Your task to perform on an android device: visit the assistant section in the google photos Image 0: 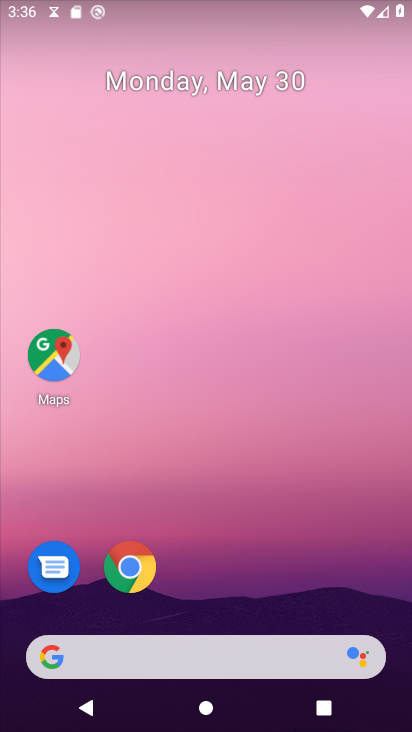
Step 0: drag from (236, 695) to (187, 261)
Your task to perform on an android device: visit the assistant section in the google photos Image 1: 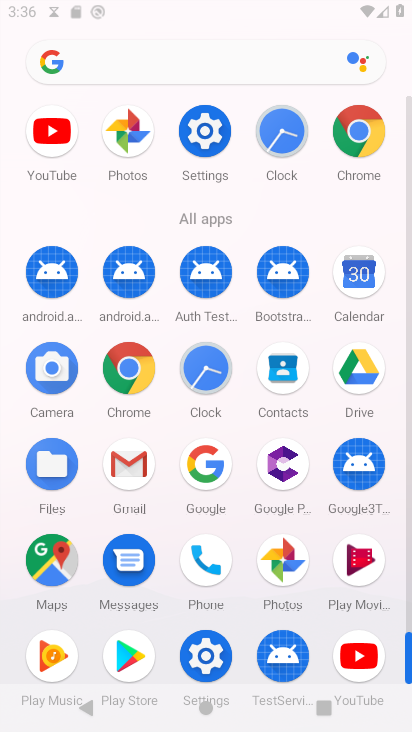
Step 1: drag from (206, 460) to (146, 22)
Your task to perform on an android device: visit the assistant section in the google photos Image 2: 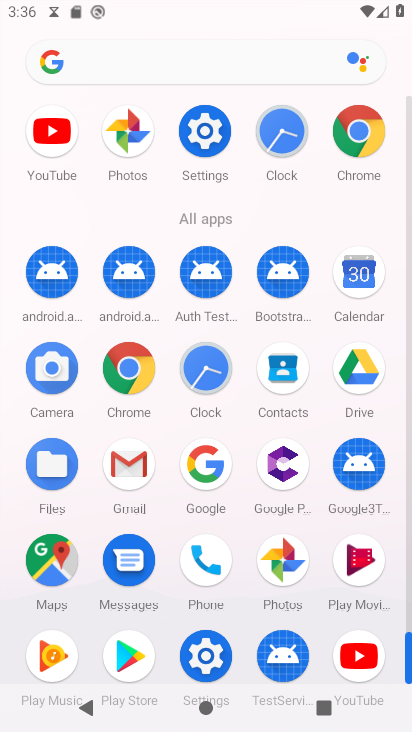
Step 2: drag from (235, 481) to (191, 153)
Your task to perform on an android device: visit the assistant section in the google photos Image 3: 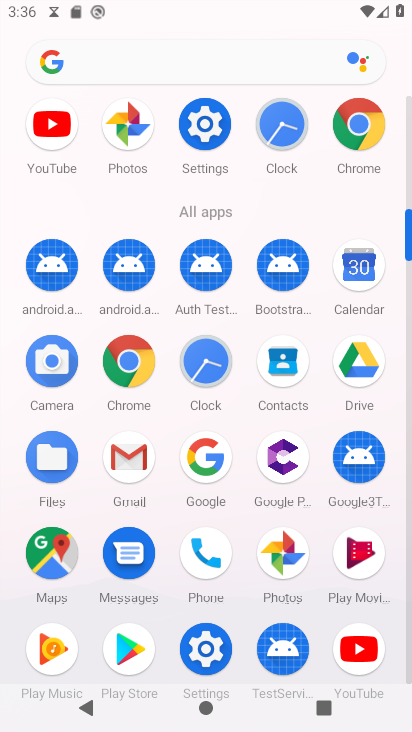
Step 3: click (279, 546)
Your task to perform on an android device: visit the assistant section in the google photos Image 4: 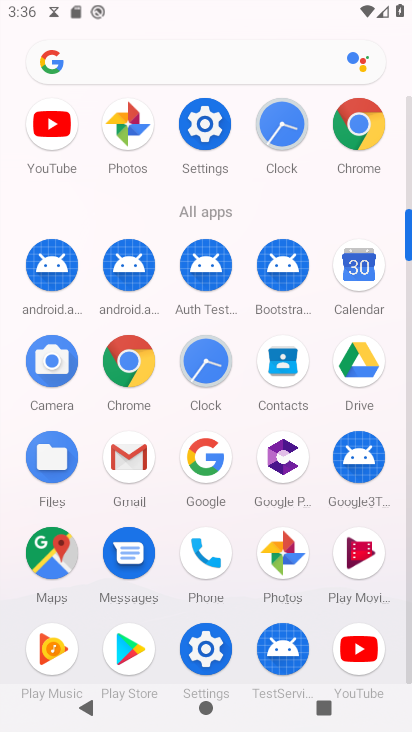
Step 4: click (279, 546)
Your task to perform on an android device: visit the assistant section in the google photos Image 5: 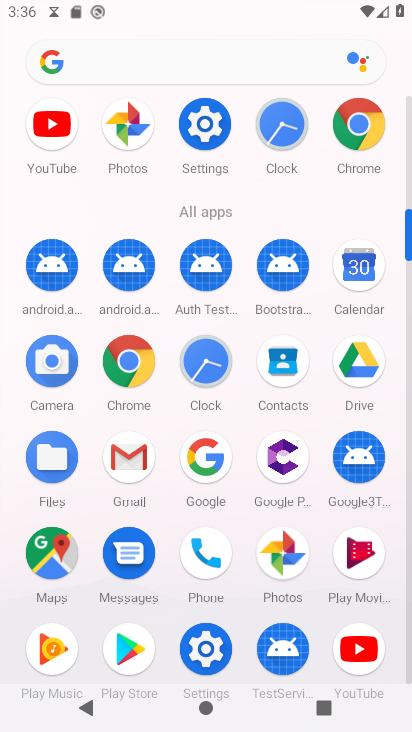
Step 5: click (280, 547)
Your task to perform on an android device: visit the assistant section in the google photos Image 6: 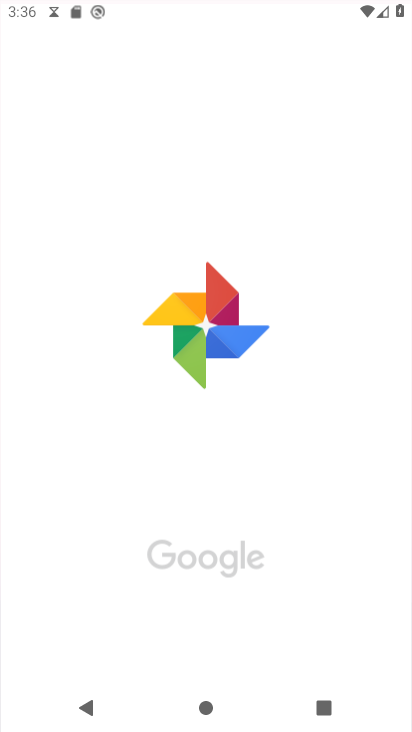
Step 6: click (280, 547)
Your task to perform on an android device: visit the assistant section in the google photos Image 7: 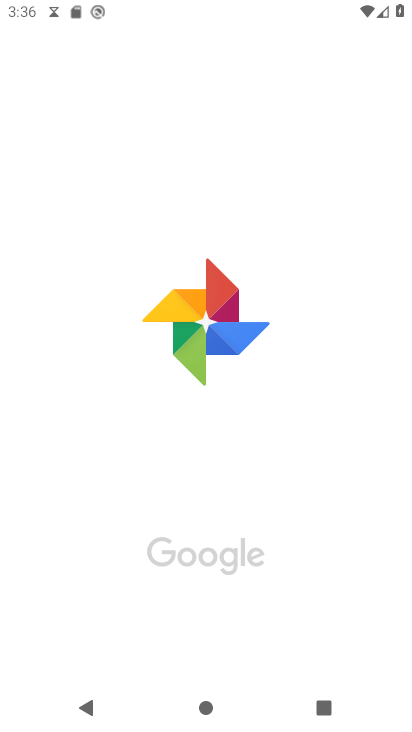
Step 7: click (280, 548)
Your task to perform on an android device: visit the assistant section in the google photos Image 8: 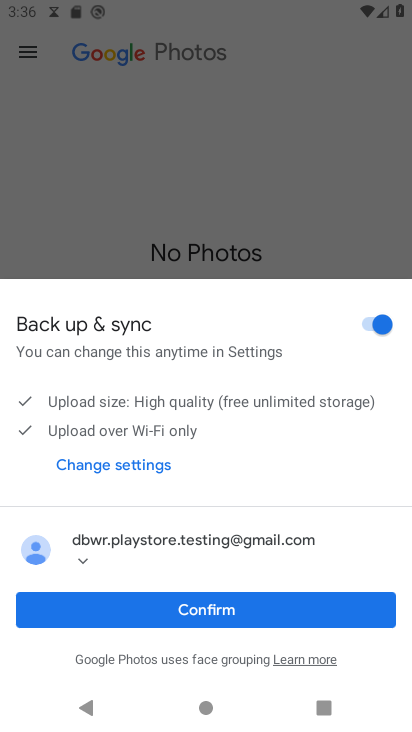
Step 8: click (235, 615)
Your task to perform on an android device: visit the assistant section in the google photos Image 9: 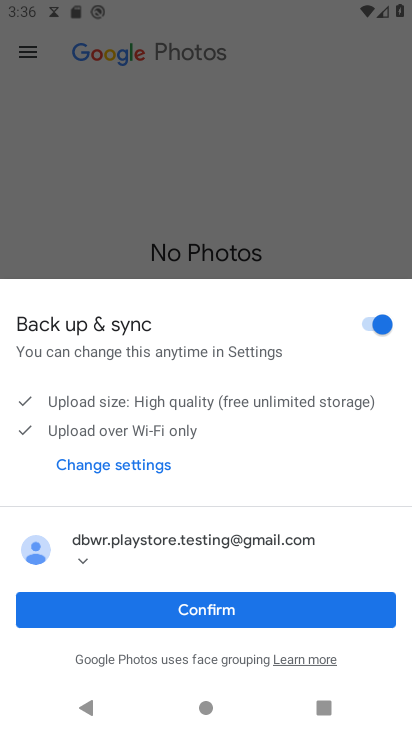
Step 9: click (235, 615)
Your task to perform on an android device: visit the assistant section in the google photos Image 10: 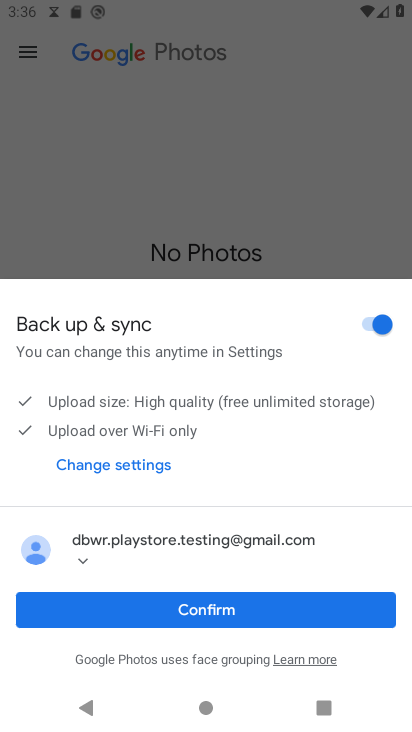
Step 10: click (235, 615)
Your task to perform on an android device: visit the assistant section in the google photos Image 11: 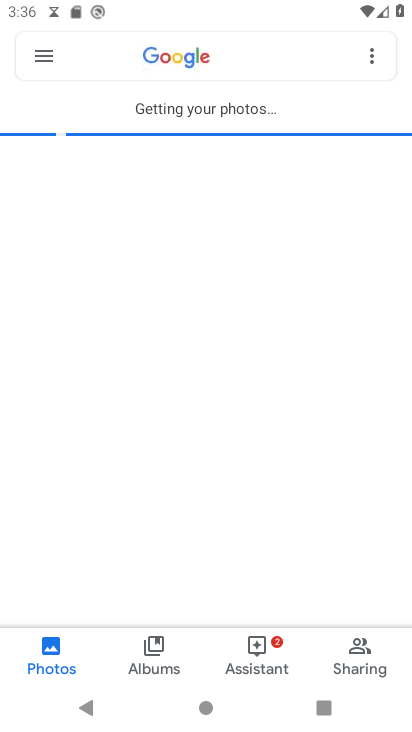
Step 11: click (257, 641)
Your task to perform on an android device: visit the assistant section in the google photos Image 12: 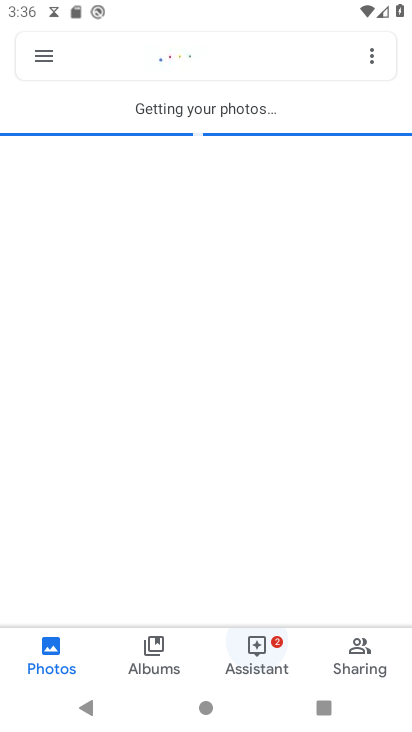
Step 12: click (258, 640)
Your task to perform on an android device: visit the assistant section in the google photos Image 13: 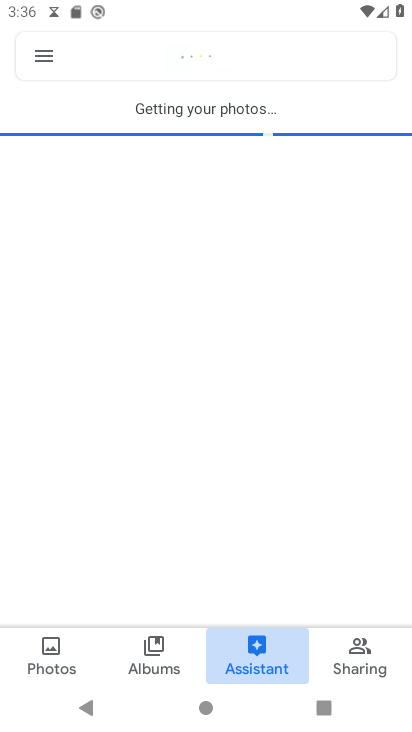
Step 13: click (258, 640)
Your task to perform on an android device: visit the assistant section in the google photos Image 14: 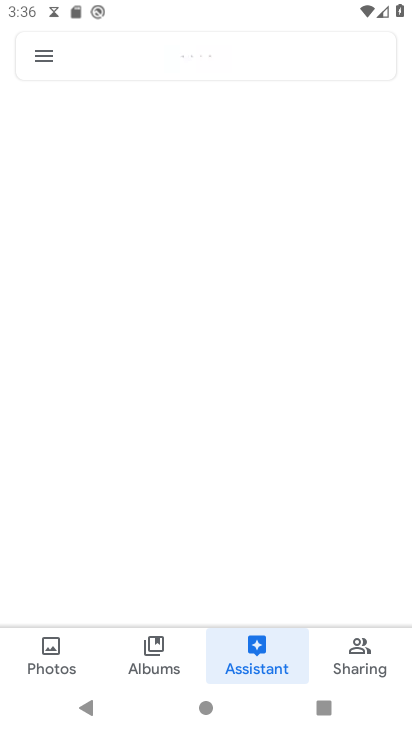
Step 14: click (257, 641)
Your task to perform on an android device: visit the assistant section in the google photos Image 15: 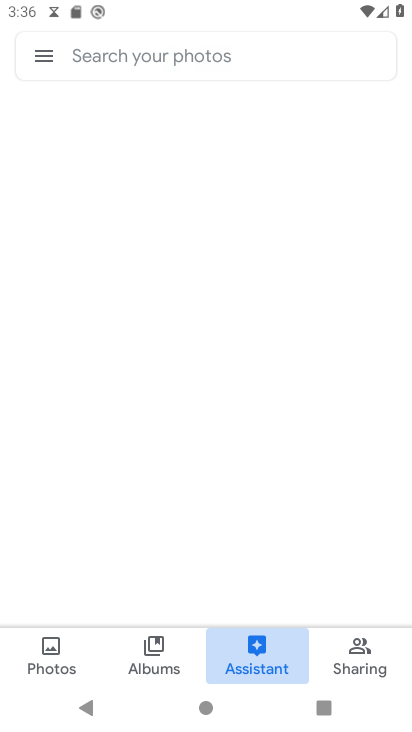
Step 15: click (254, 642)
Your task to perform on an android device: visit the assistant section in the google photos Image 16: 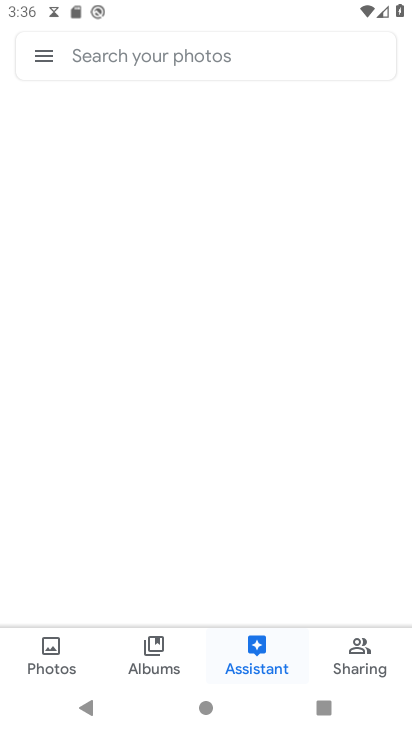
Step 16: click (254, 642)
Your task to perform on an android device: visit the assistant section in the google photos Image 17: 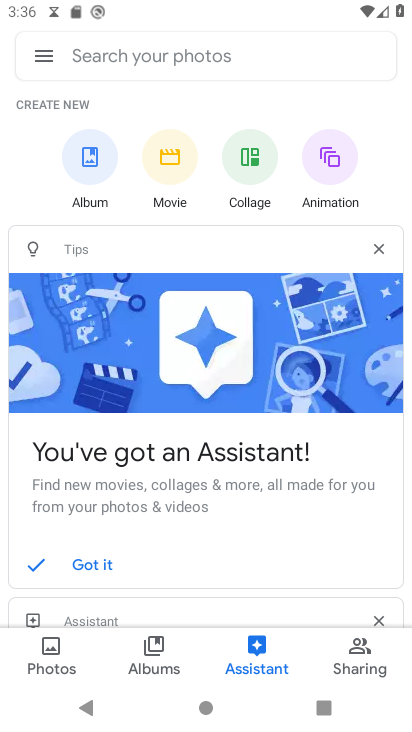
Step 17: task complete